Your task to perform on an android device: delete the emails in spam in the gmail app Image 0: 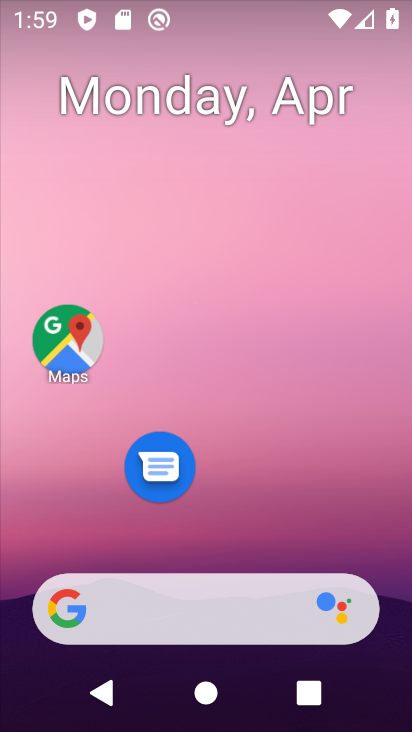
Step 0: drag from (253, 535) to (248, 70)
Your task to perform on an android device: delete the emails in spam in the gmail app Image 1: 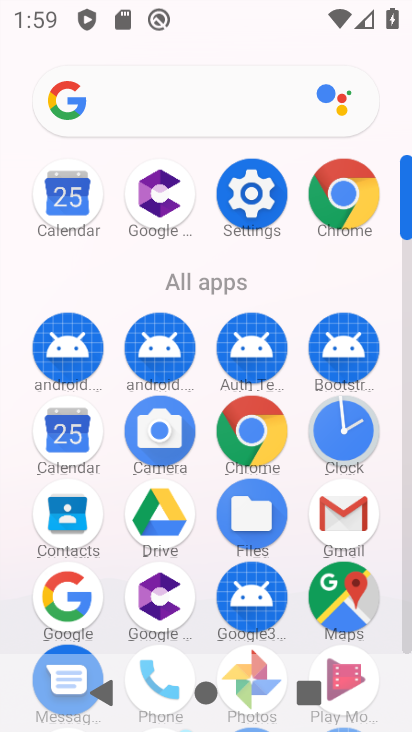
Step 1: click (343, 503)
Your task to perform on an android device: delete the emails in spam in the gmail app Image 2: 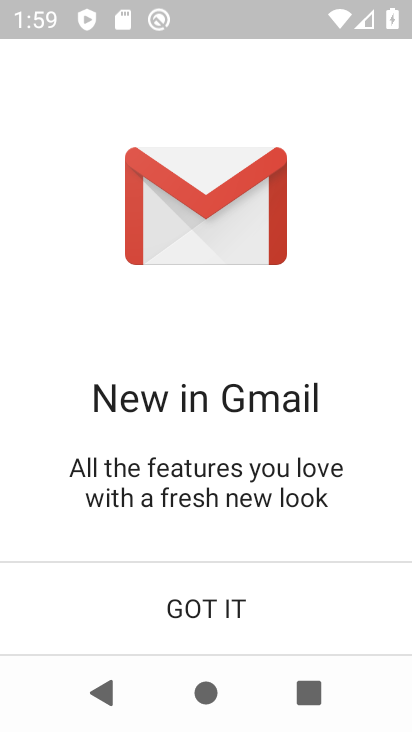
Step 2: click (300, 607)
Your task to perform on an android device: delete the emails in spam in the gmail app Image 3: 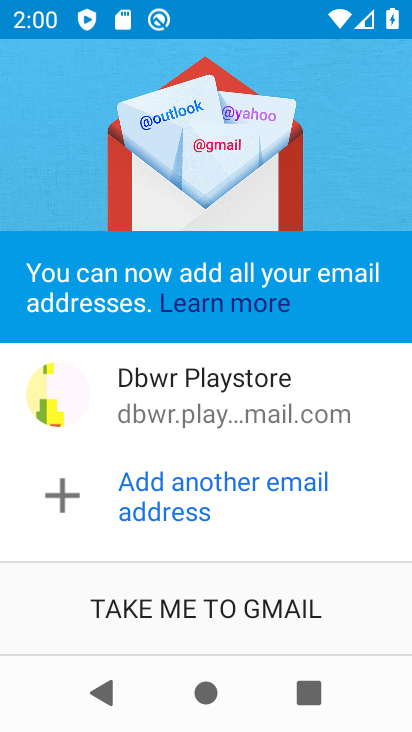
Step 3: click (225, 590)
Your task to perform on an android device: delete the emails in spam in the gmail app Image 4: 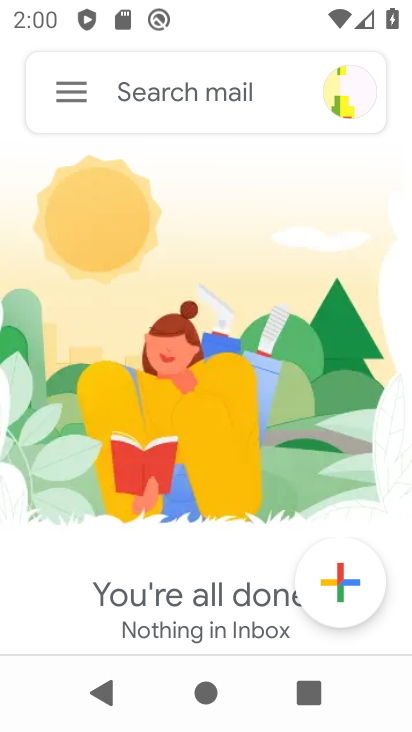
Step 4: click (70, 85)
Your task to perform on an android device: delete the emails in spam in the gmail app Image 5: 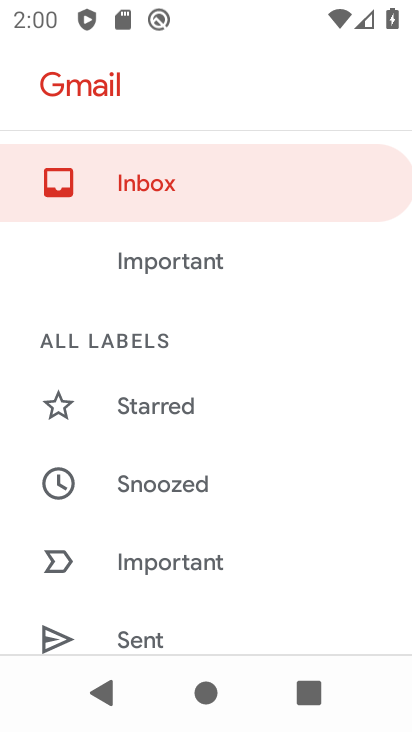
Step 5: drag from (196, 550) to (201, 435)
Your task to perform on an android device: delete the emails in spam in the gmail app Image 6: 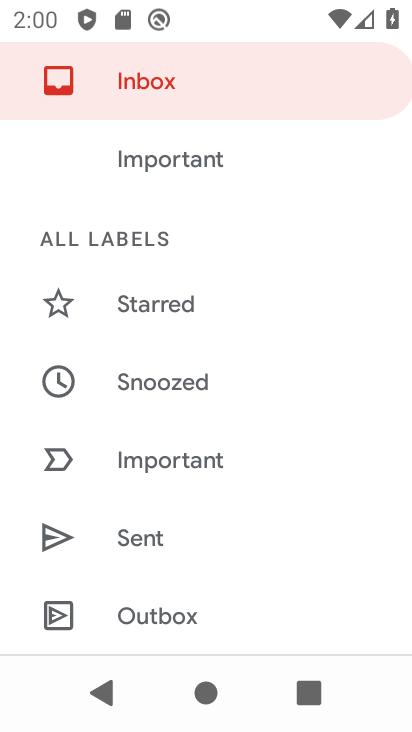
Step 6: drag from (213, 599) to (205, 356)
Your task to perform on an android device: delete the emails in spam in the gmail app Image 7: 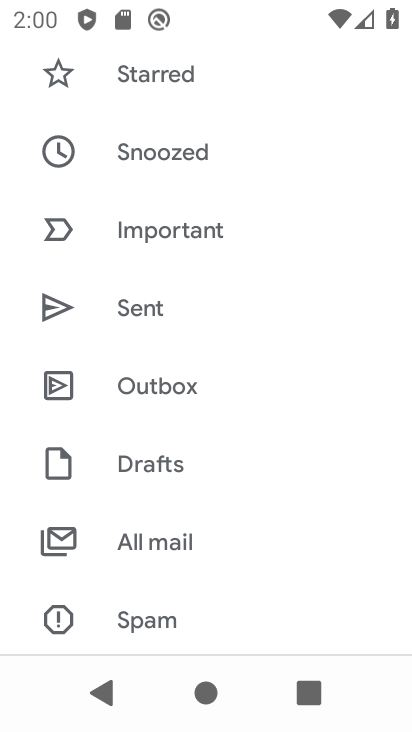
Step 7: click (196, 624)
Your task to perform on an android device: delete the emails in spam in the gmail app Image 8: 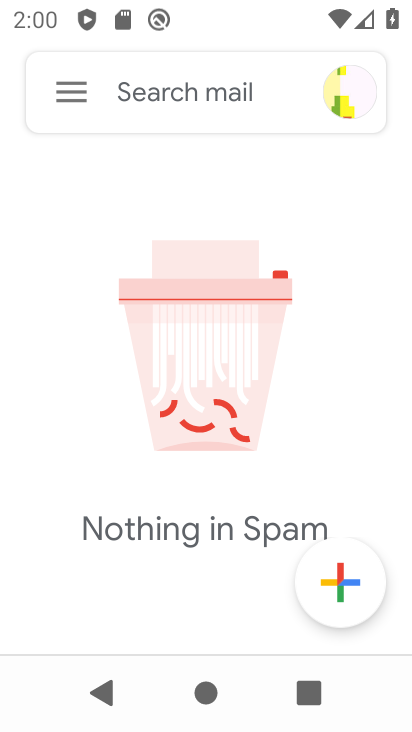
Step 8: task complete